Your task to perform on an android device: star an email in the gmail app Image 0: 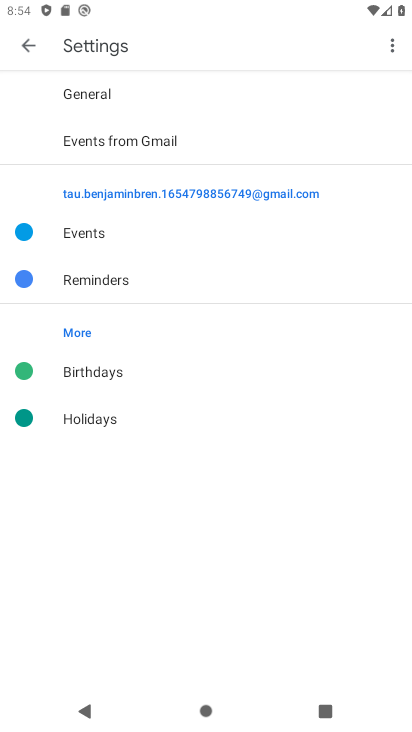
Step 0: press home button
Your task to perform on an android device: star an email in the gmail app Image 1: 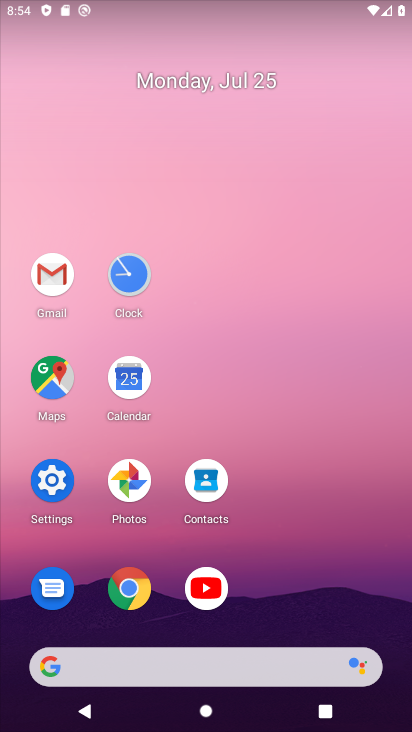
Step 1: click (46, 273)
Your task to perform on an android device: star an email in the gmail app Image 2: 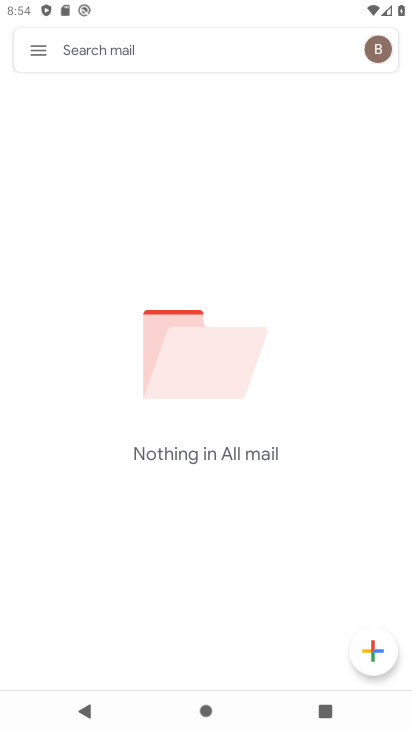
Step 2: task complete